Your task to perform on an android device: show emergency info Image 0: 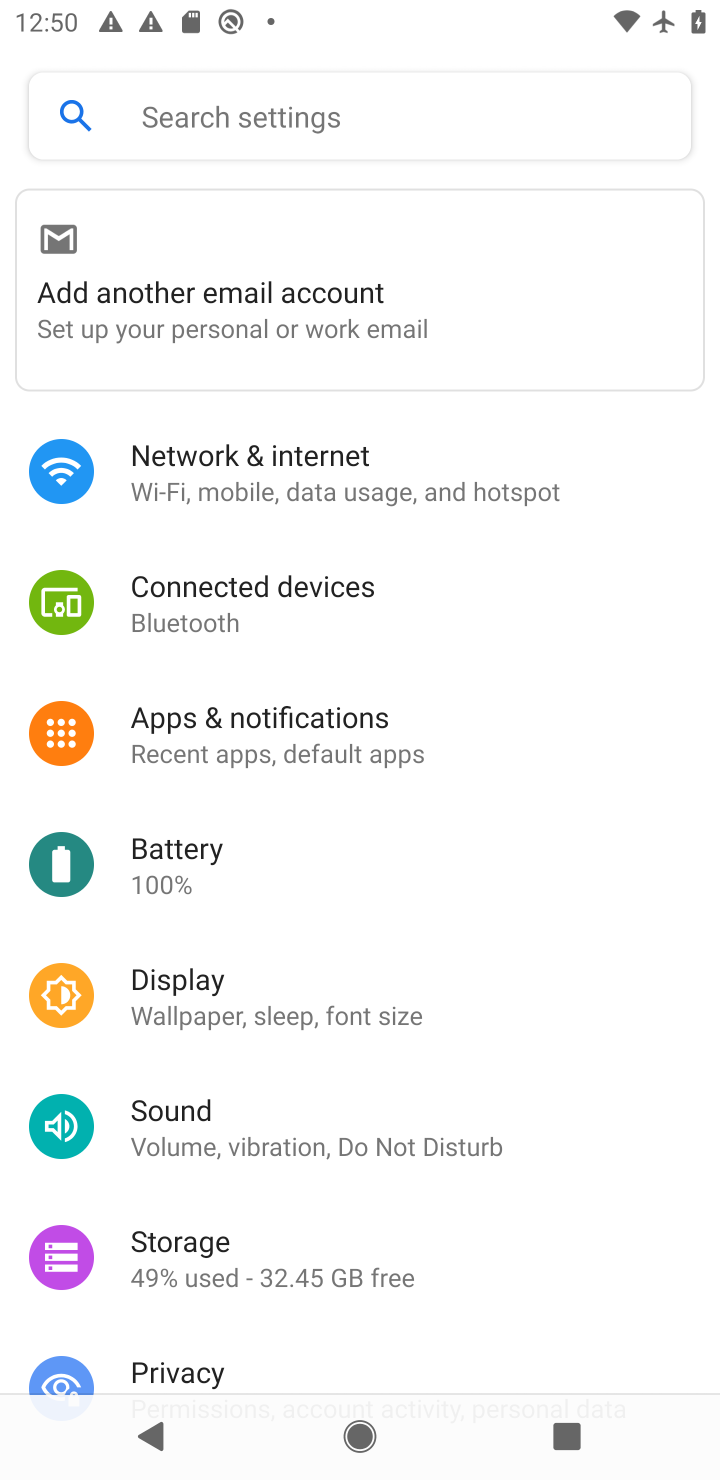
Step 0: drag from (375, 1326) to (305, 171)
Your task to perform on an android device: show emergency info Image 1: 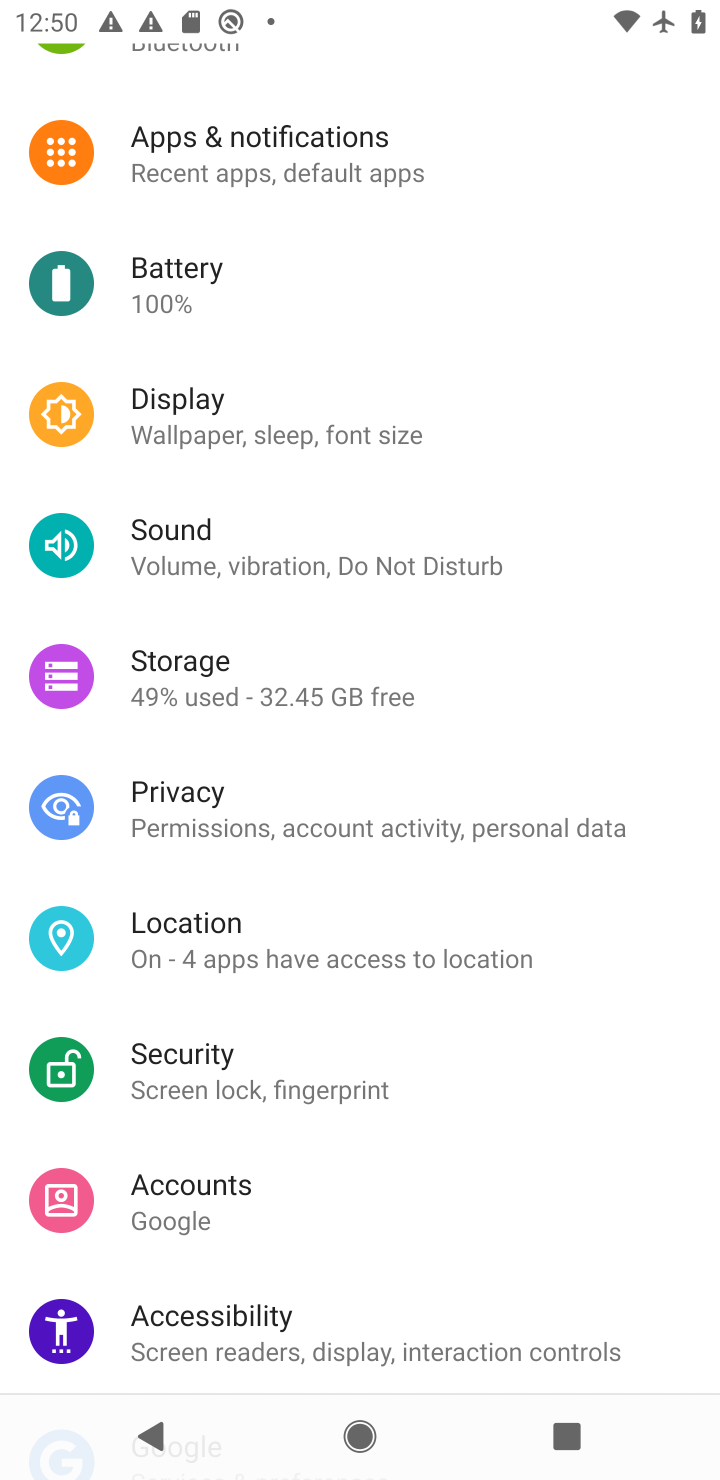
Step 1: drag from (296, 1295) to (314, 335)
Your task to perform on an android device: show emergency info Image 2: 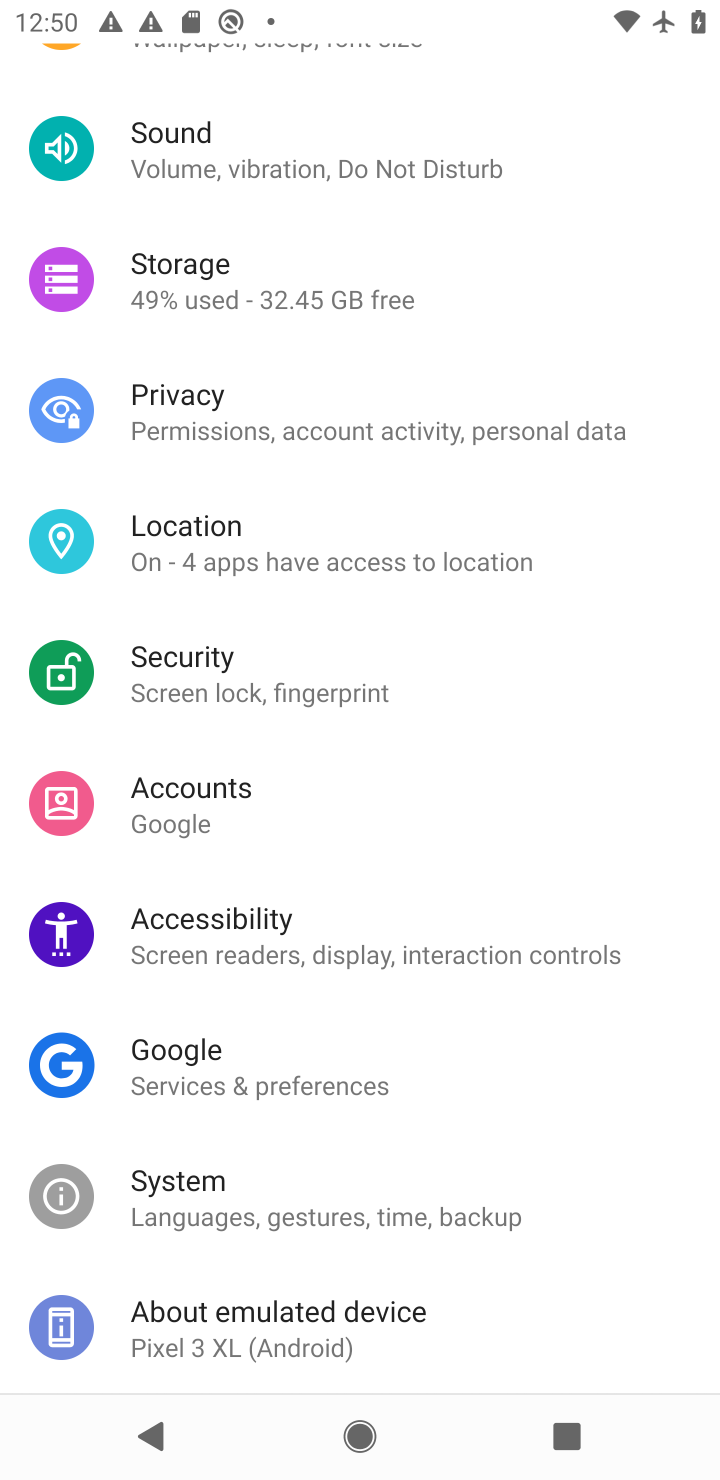
Step 2: click (311, 1282)
Your task to perform on an android device: show emergency info Image 3: 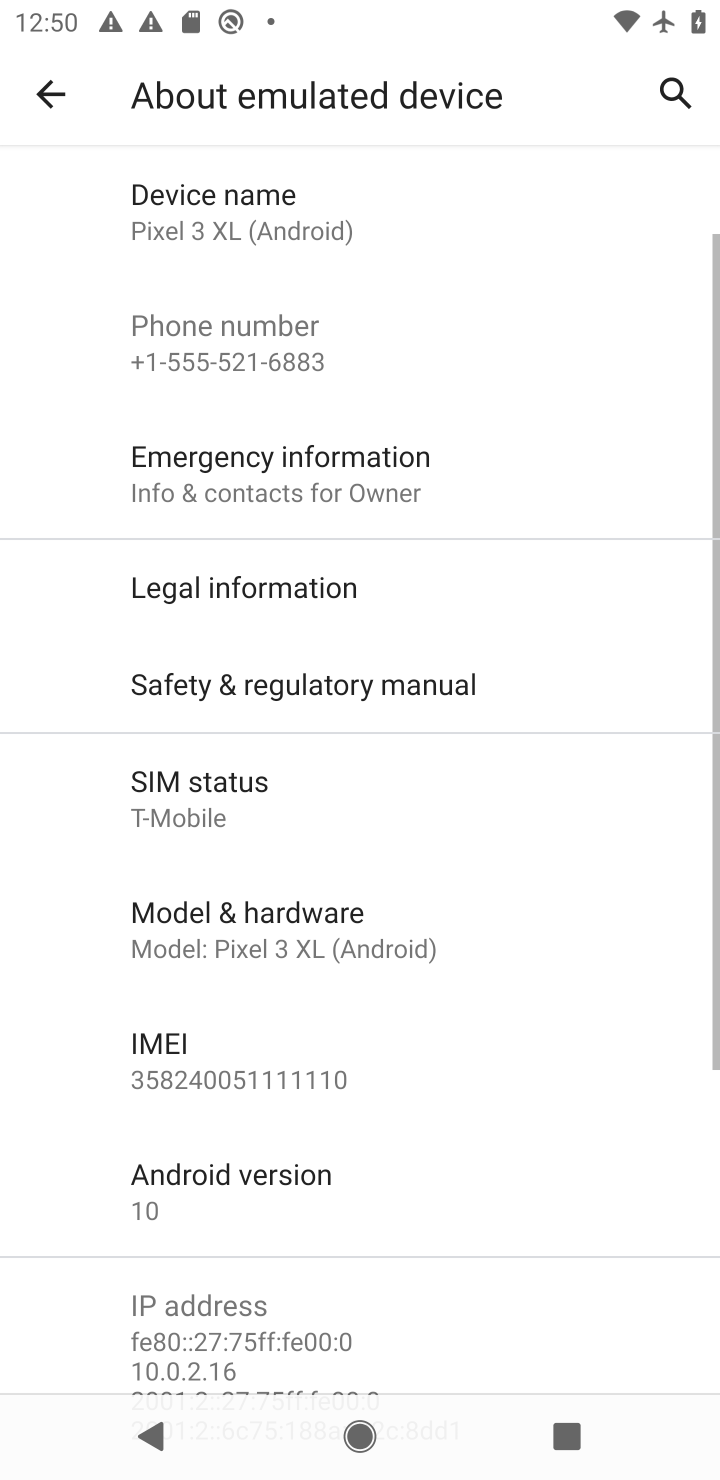
Step 3: click (299, 462)
Your task to perform on an android device: show emergency info Image 4: 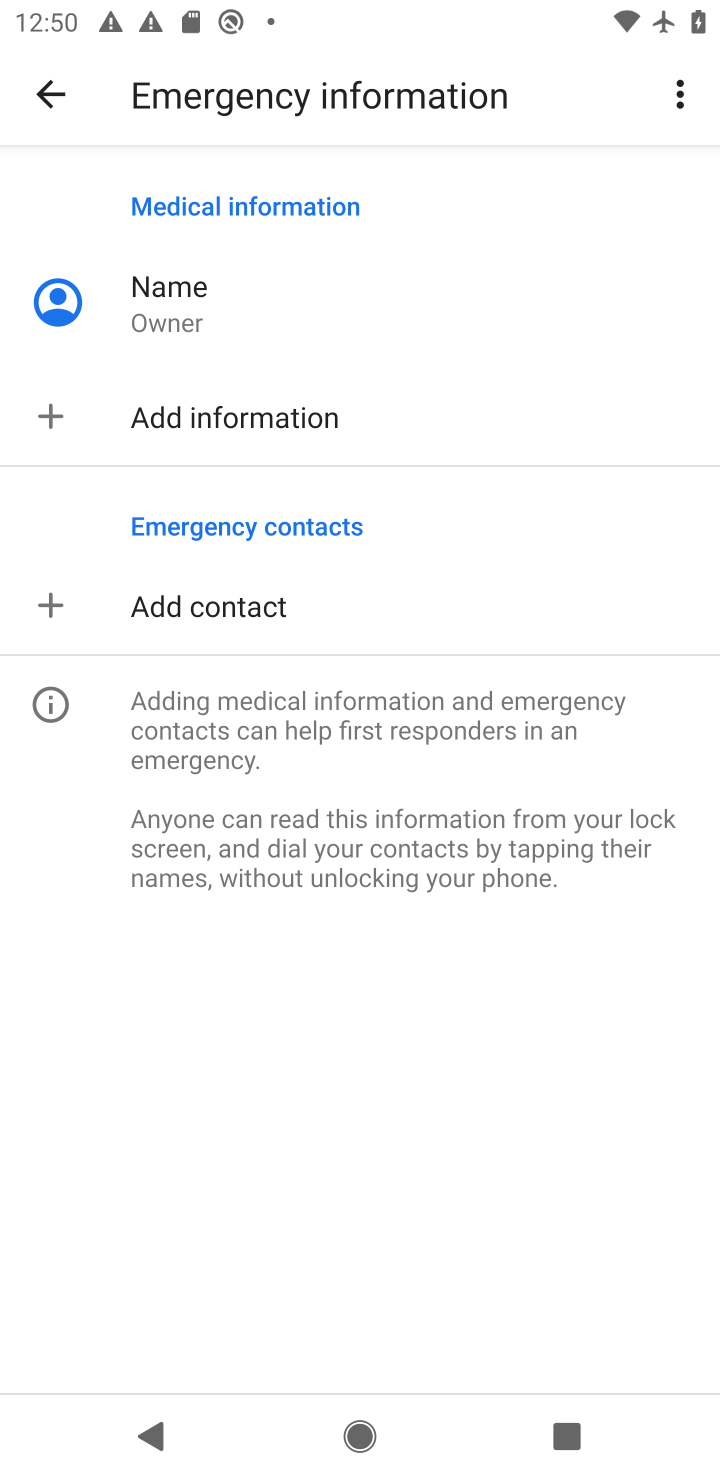
Step 4: task complete